Your task to perform on an android device: Go to accessibility settings Image 0: 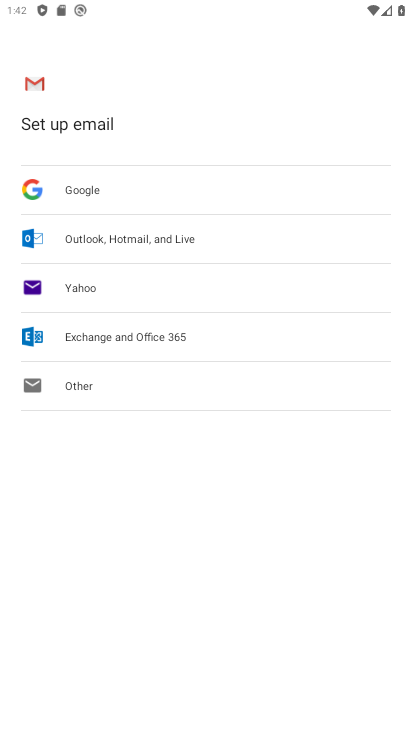
Step 0: press home button
Your task to perform on an android device: Go to accessibility settings Image 1: 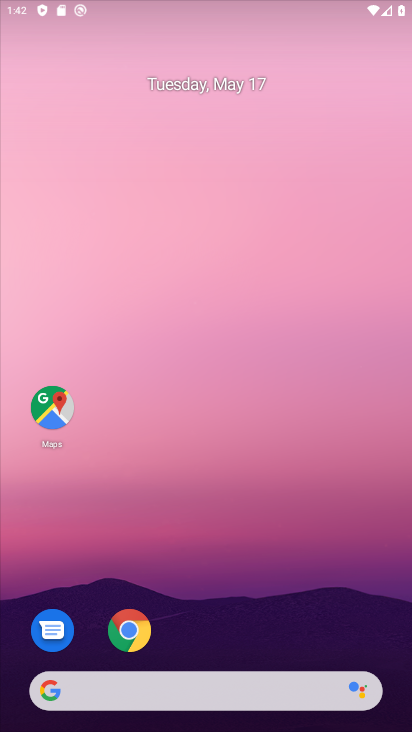
Step 1: drag from (342, 629) to (314, 157)
Your task to perform on an android device: Go to accessibility settings Image 2: 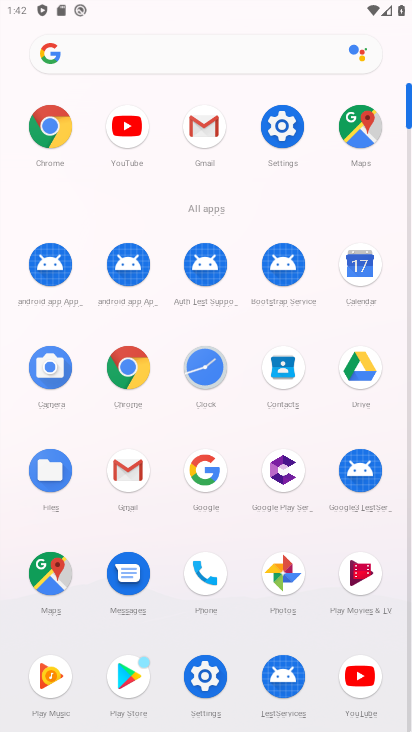
Step 2: click (186, 693)
Your task to perform on an android device: Go to accessibility settings Image 3: 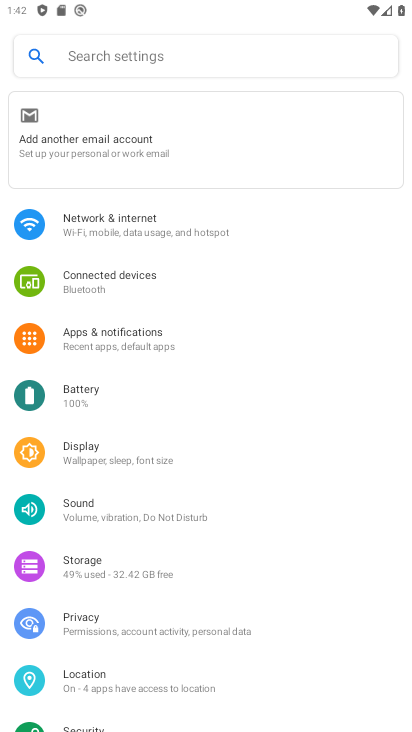
Step 3: drag from (215, 618) to (230, 348)
Your task to perform on an android device: Go to accessibility settings Image 4: 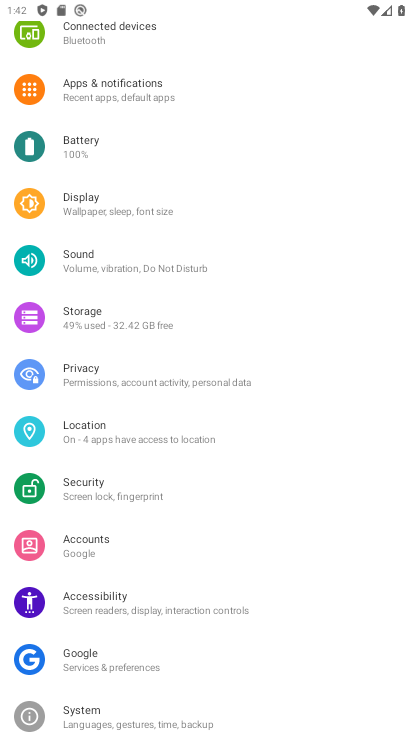
Step 4: click (155, 608)
Your task to perform on an android device: Go to accessibility settings Image 5: 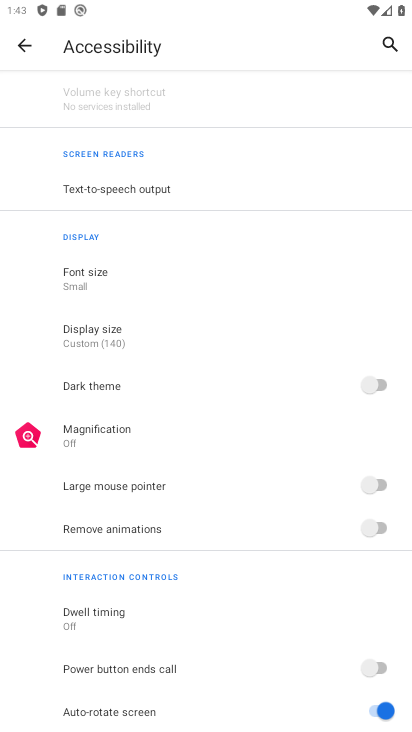
Step 5: task complete